Your task to perform on an android device: snooze an email in the gmail app Image 0: 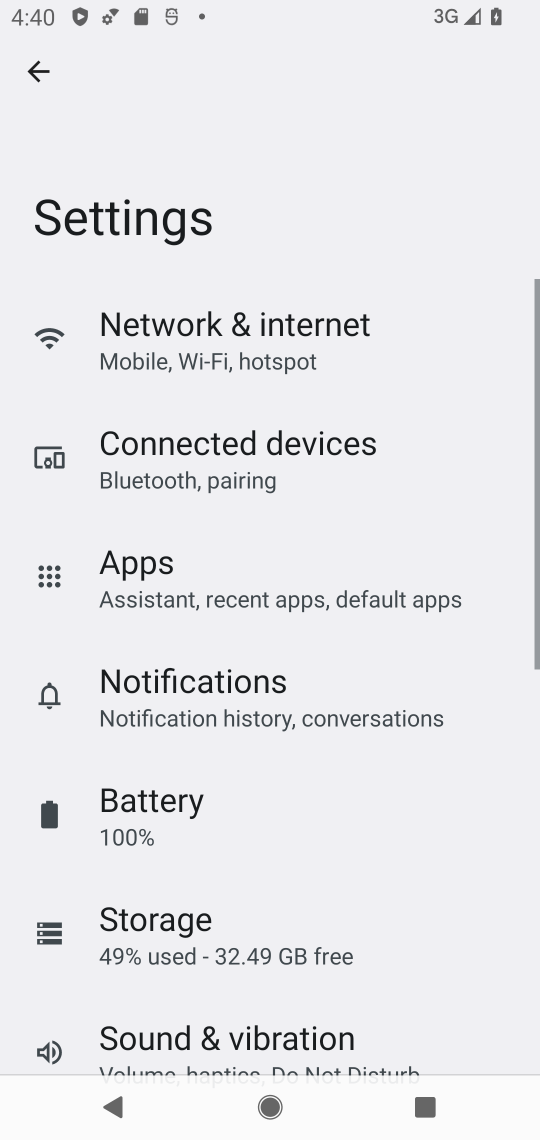
Step 0: press home button
Your task to perform on an android device: snooze an email in the gmail app Image 1: 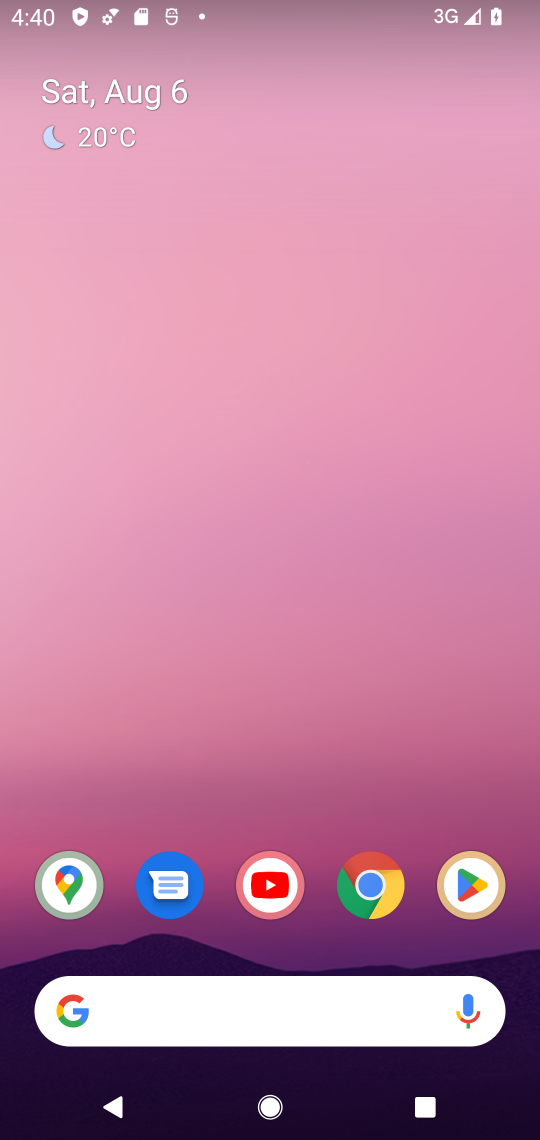
Step 1: drag from (470, 965) to (238, 54)
Your task to perform on an android device: snooze an email in the gmail app Image 2: 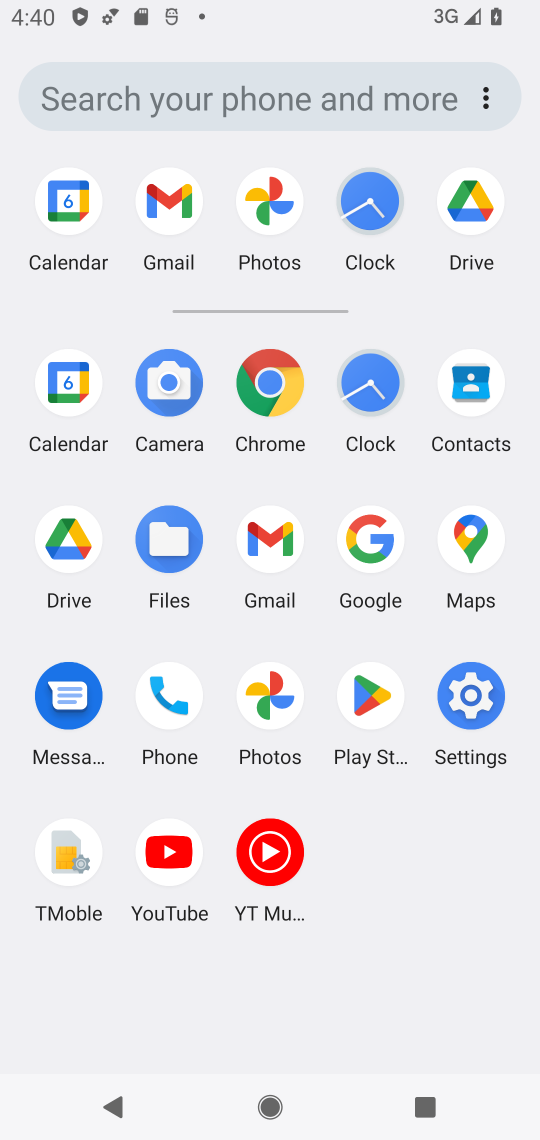
Step 2: click (277, 553)
Your task to perform on an android device: snooze an email in the gmail app Image 3: 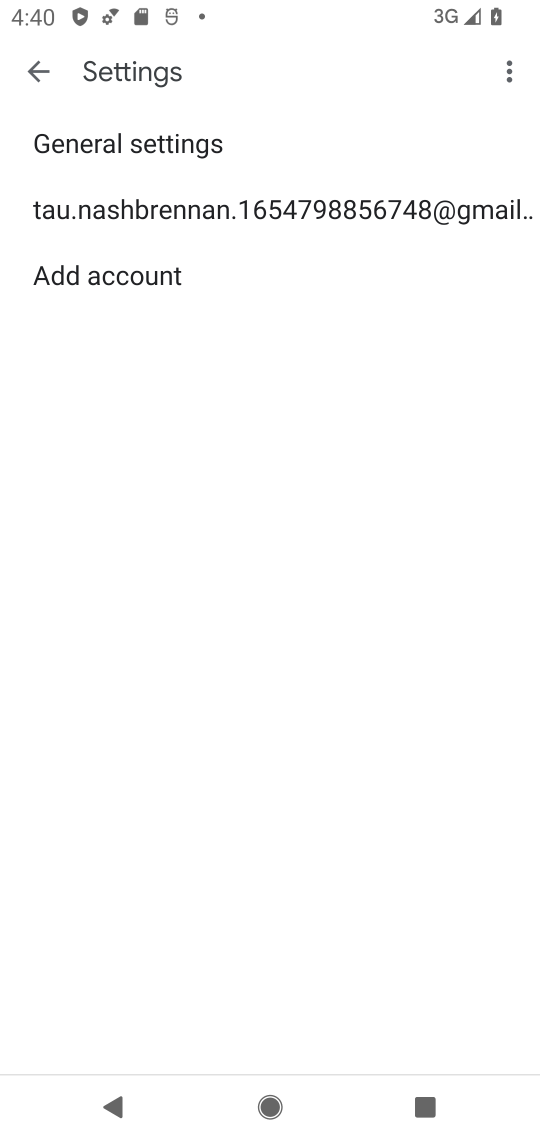
Step 3: task complete